Your task to perform on an android device: manage bookmarks in the chrome app Image 0: 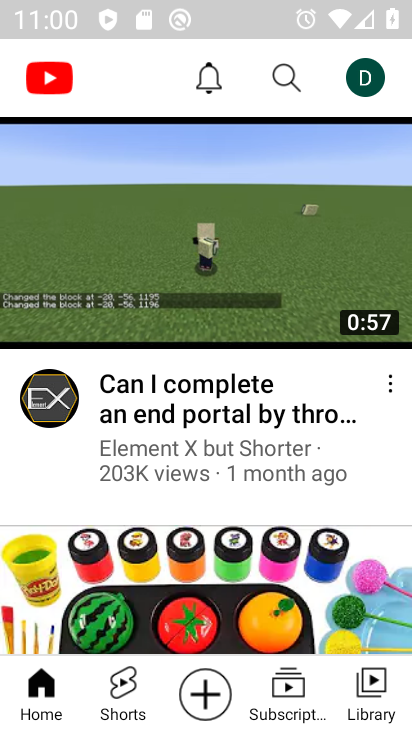
Step 0: press back button
Your task to perform on an android device: manage bookmarks in the chrome app Image 1: 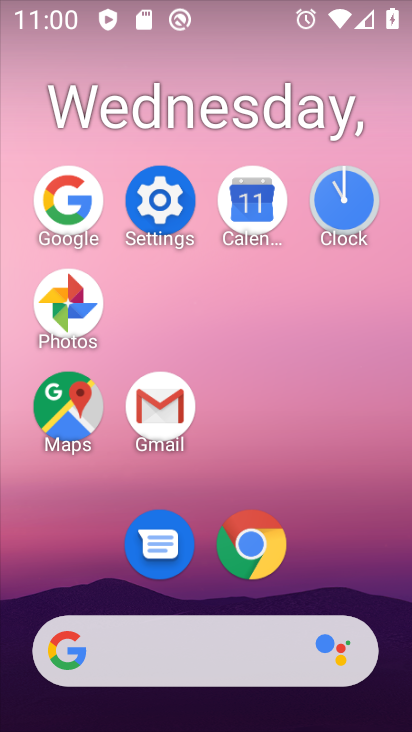
Step 1: click (252, 533)
Your task to perform on an android device: manage bookmarks in the chrome app Image 2: 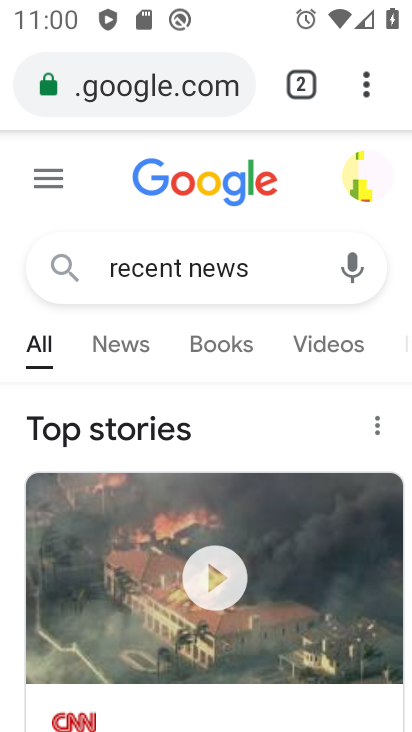
Step 2: click (374, 86)
Your task to perform on an android device: manage bookmarks in the chrome app Image 3: 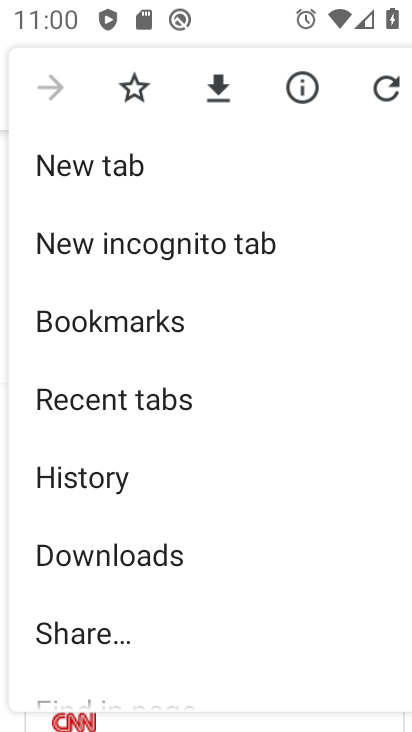
Step 3: click (154, 317)
Your task to perform on an android device: manage bookmarks in the chrome app Image 4: 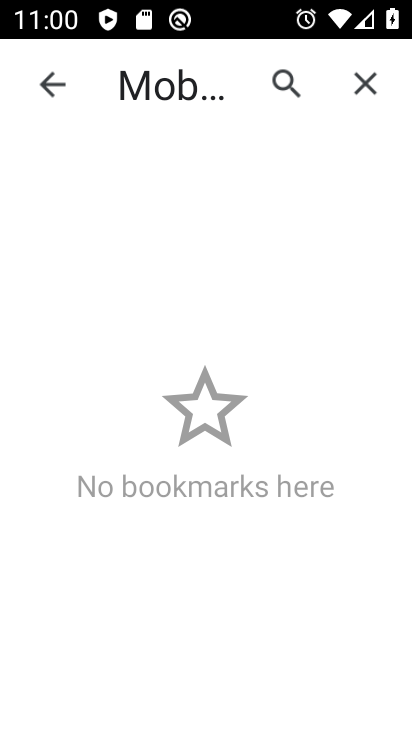
Step 4: task complete